Your task to perform on an android device: What's on my calendar today? Image 0: 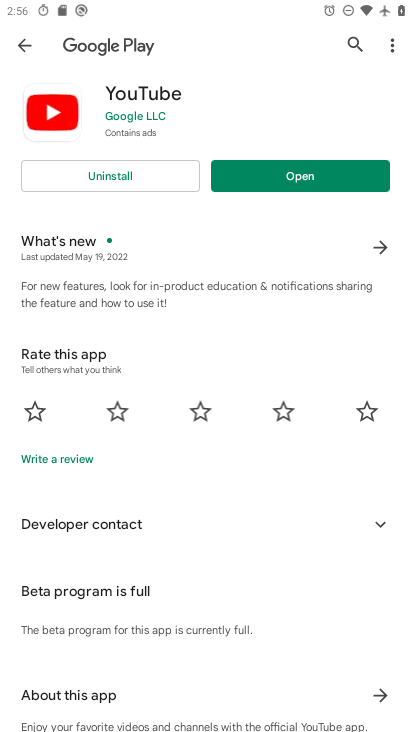
Step 0: press home button
Your task to perform on an android device: What's on my calendar today? Image 1: 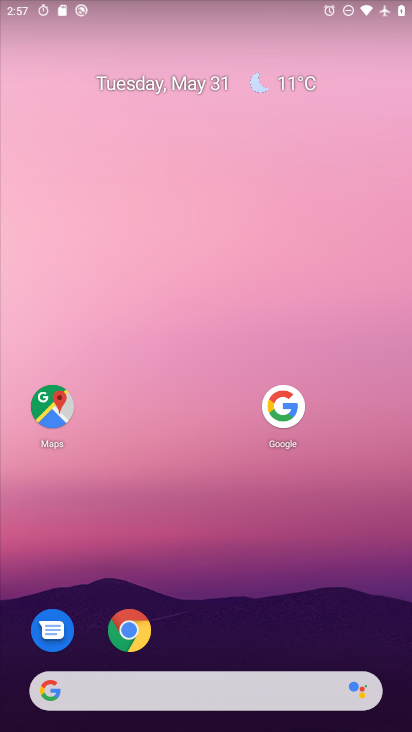
Step 1: drag from (176, 699) to (289, 167)
Your task to perform on an android device: What's on my calendar today? Image 2: 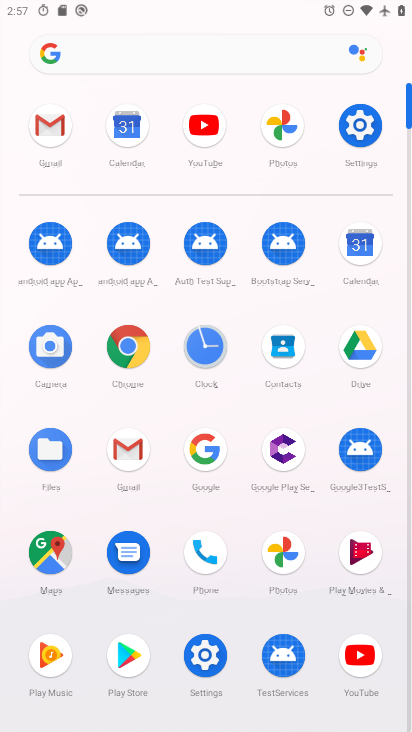
Step 2: click (129, 136)
Your task to perform on an android device: What's on my calendar today? Image 3: 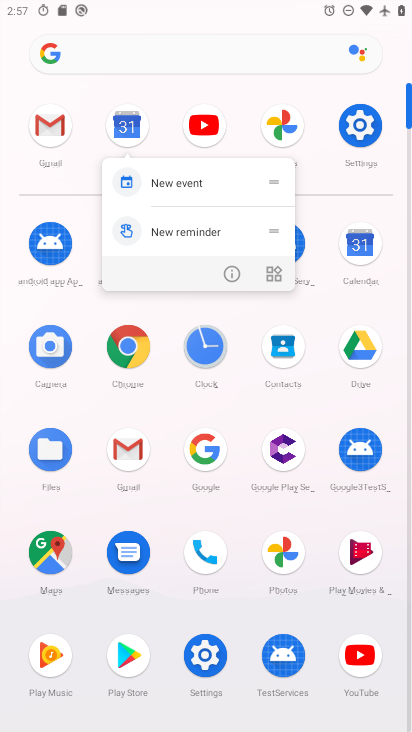
Step 3: click (121, 119)
Your task to perform on an android device: What's on my calendar today? Image 4: 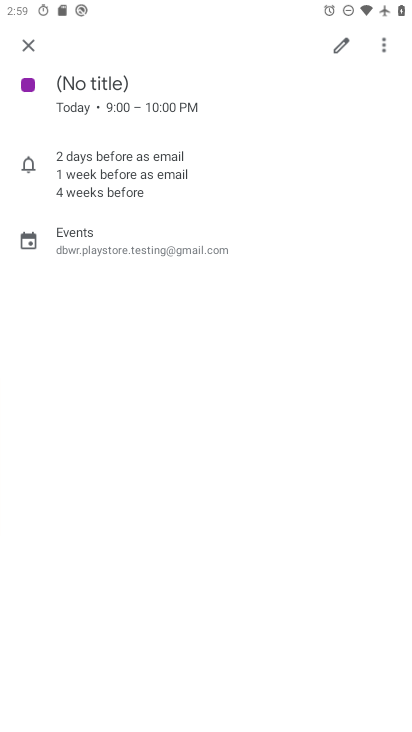
Step 4: task complete